Your task to perform on an android device: Open Google Maps Image 0: 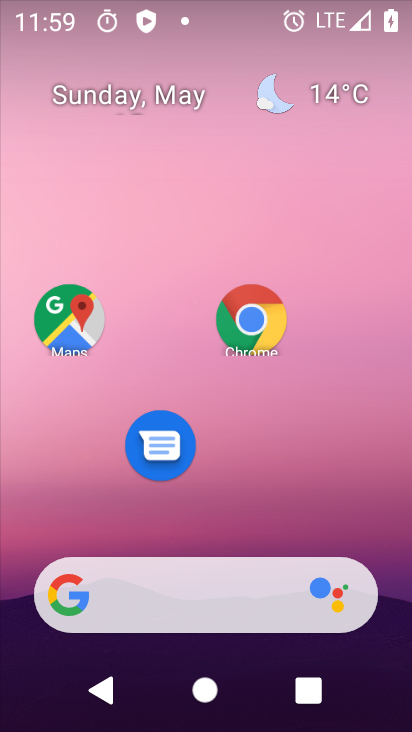
Step 0: press home button
Your task to perform on an android device: Open Google Maps Image 1: 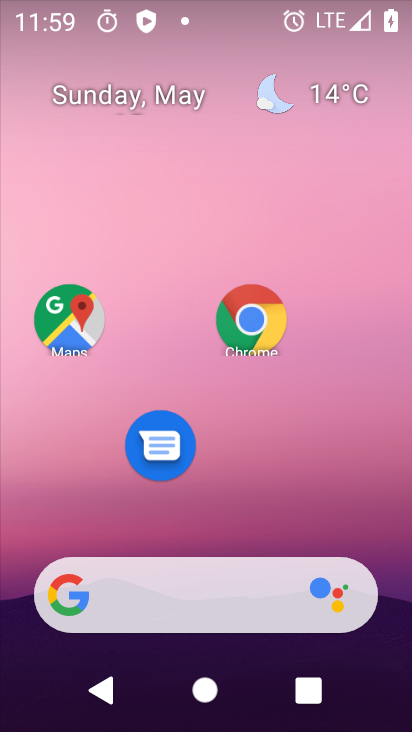
Step 1: click (78, 320)
Your task to perform on an android device: Open Google Maps Image 2: 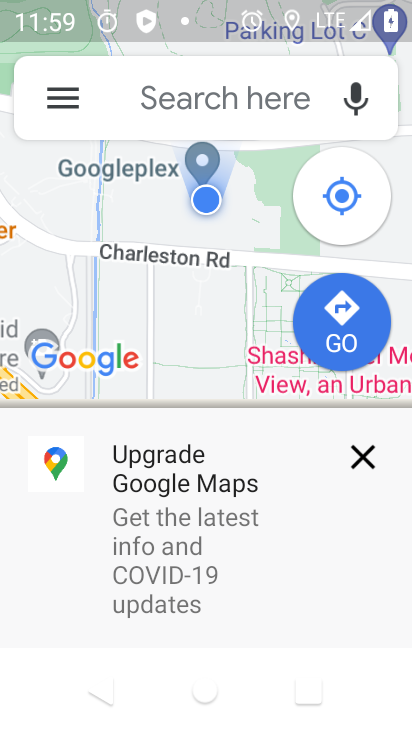
Step 2: click (359, 454)
Your task to perform on an android device: Open Google Maps Image 3: 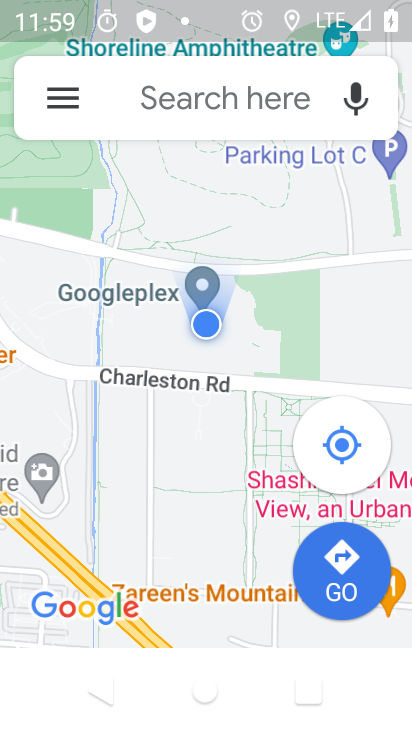
Step 3: task complete